Your task to perform on an android device: toggle javascript in the chrome app Image 0: 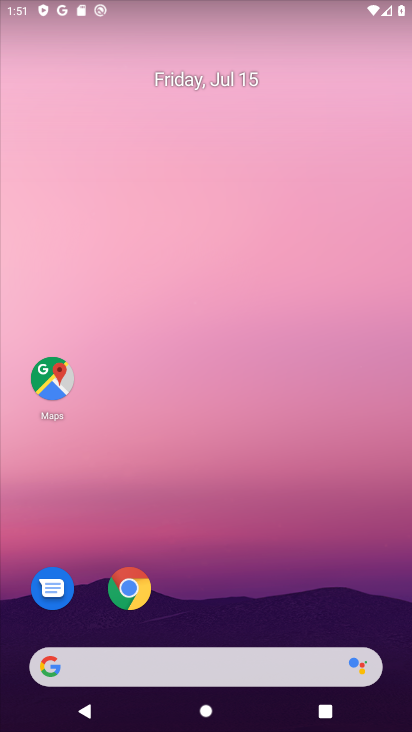
Step 0: click (198, 596)
Your task to perform on an android device: toggle javascript in the chrome app Image 1: 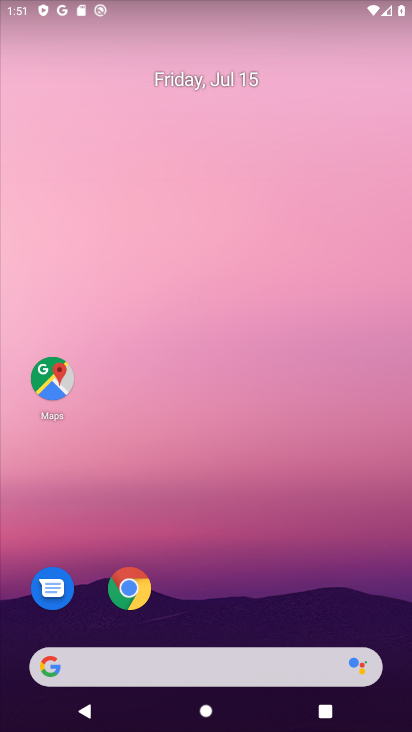
Step 1: click (134, 594)
Your task to perform on an android device: toggle javascript in the chrome app Image 2: 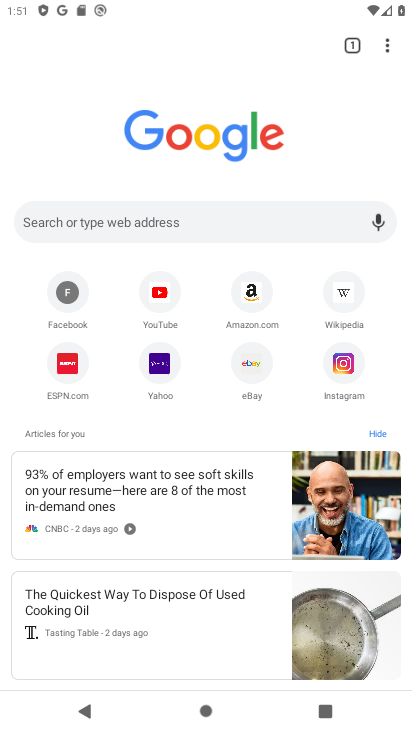
Step 2: click (398, 45)
Your task to perform on an android device: toggle javascript in the chrome app Image 3: 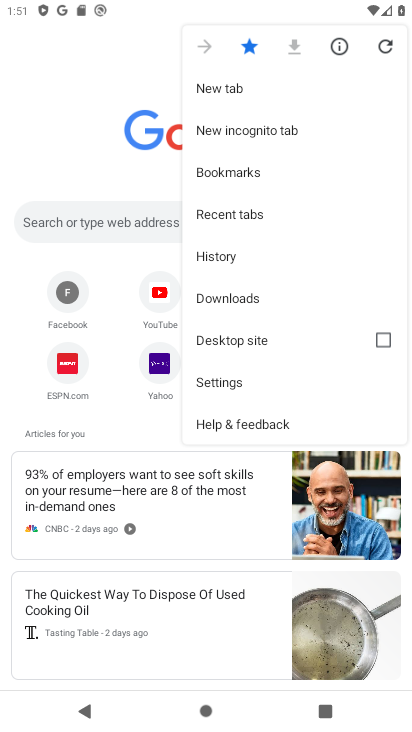
Step 3: click (276, 379)
Your task to perform on an android device: toggle javascript in the chrome app Image 4: 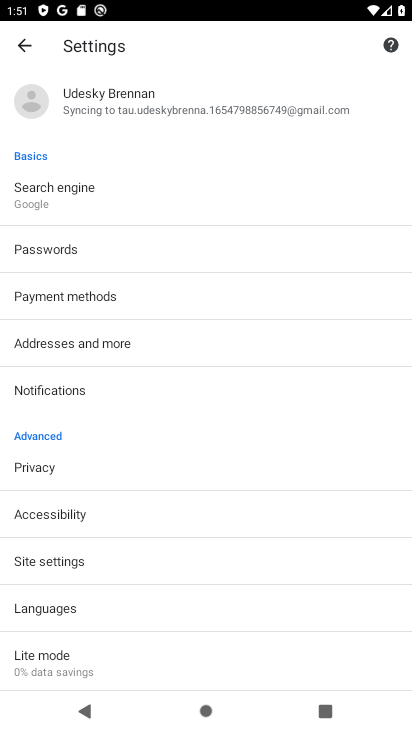
Step 4: click (188, 575)
Your task to perform on an android device: toggle javascript in the chrome app Image 5: 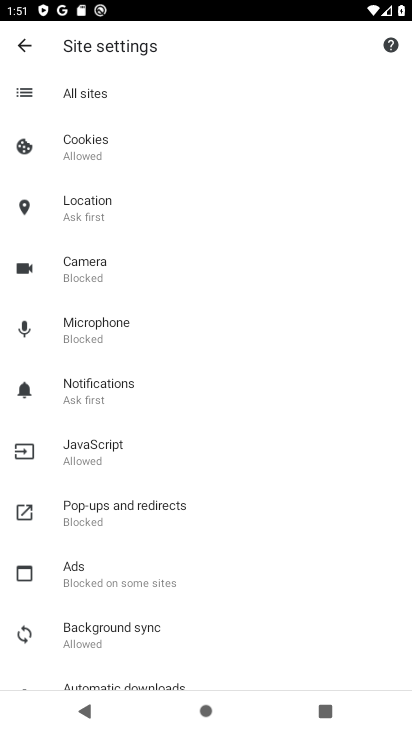
Step 5: click (246, 464)
Your task to perform on an android device: toggle javascript in the chrome app Image 6: 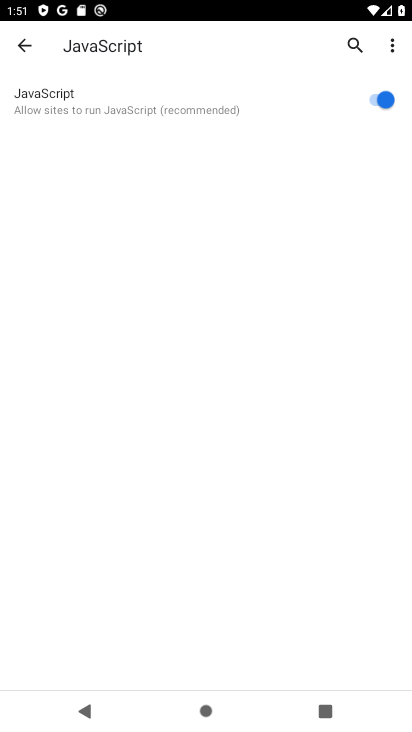
Step 6: task complete